Your task to perform on an android device: turn off improve location accuracy Image 0: 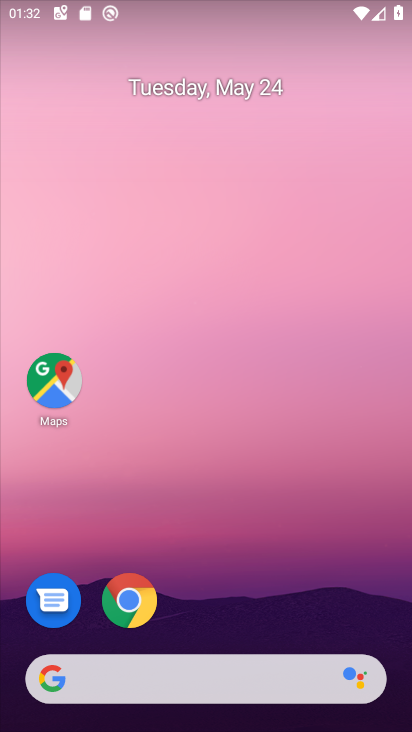
Step 0: drag from (223, 572) to (195, 178)
Your task to perform on an android device: turn off improve location accuracy Image 1: 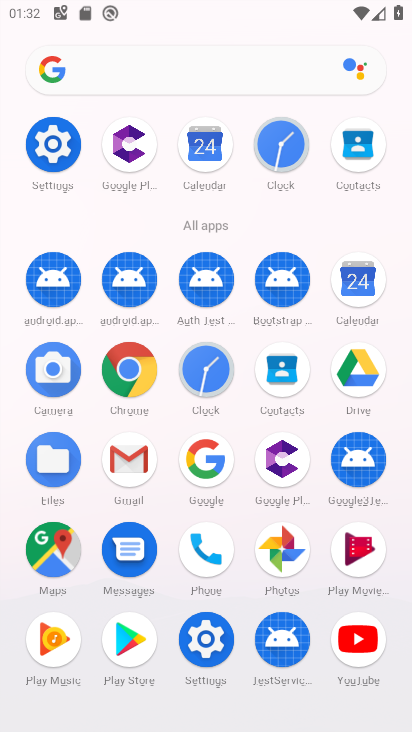
Step 1: click (36, 145)
Your task to perform on an android device: turn off improve location accuracy Image 2: 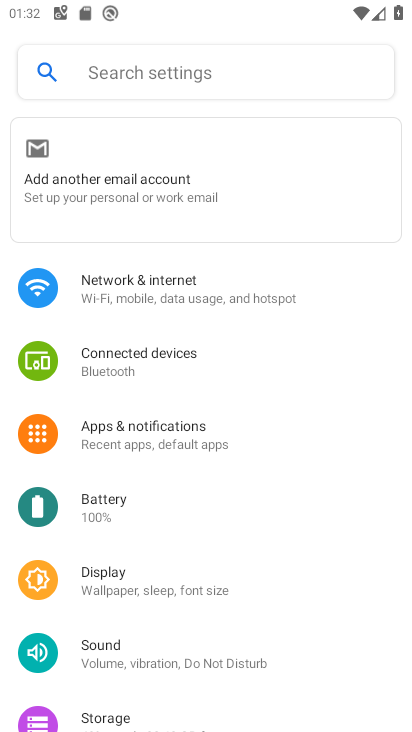
Step 2: drag from (189, 579) to (157, 296)
Your task to perform on an android device: turn off improve location accuracy Image 3: 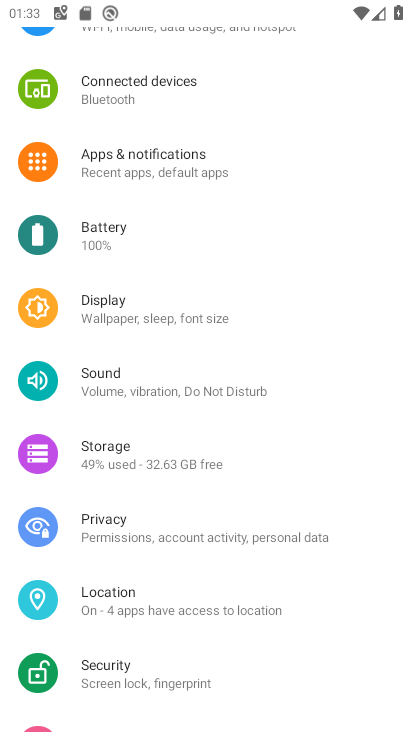
Step 3: click (144, 628)
Your task to perform on an android device: turn off improve location accuracy Image 4: 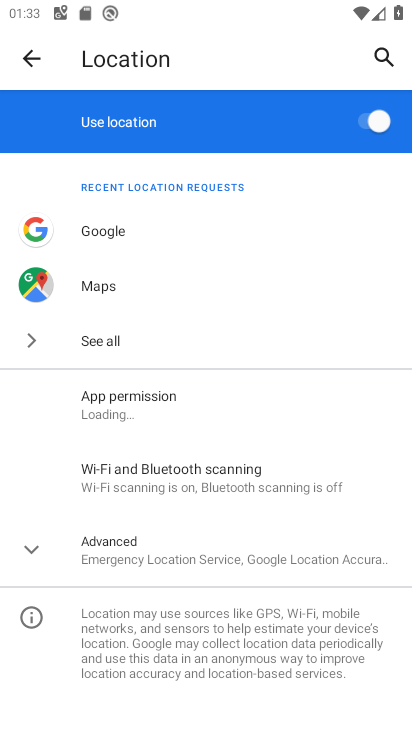
Step 4: click (189, 529)
Your task to perform on an android device: turn off improve location accuracy Image 5: 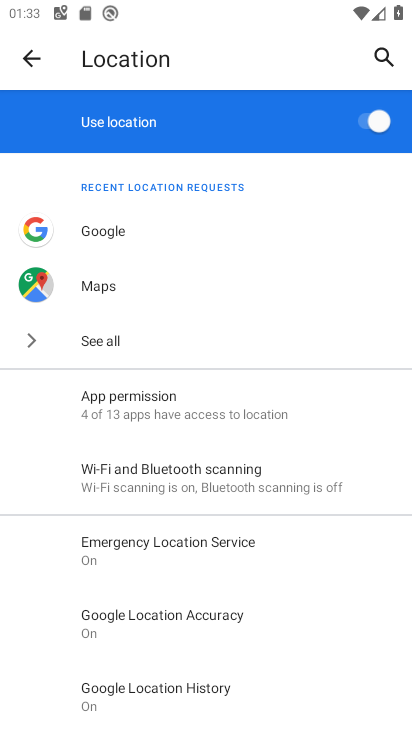
Step 5: click (207, 628)
Your task to perform on an android device: turn off improve location accuracy Image 6: 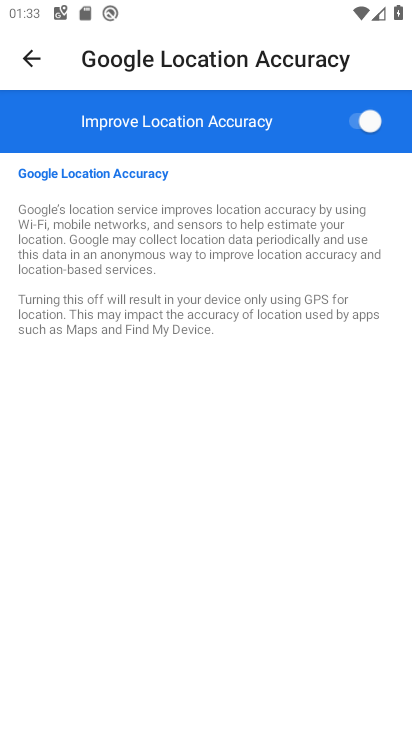
Step 6: task complete